Your task to perform on an android device: open a bookmark in the chrome app Image 0: 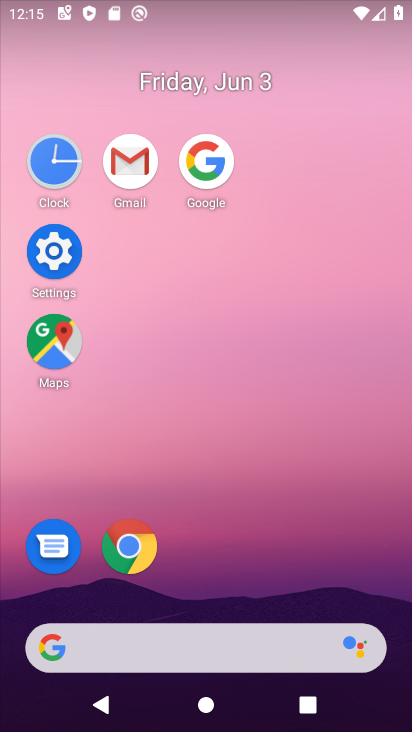
Step 0: click (132, 550)
Your task to perform on an android device: open a bookmark in the chrome app Image 1: 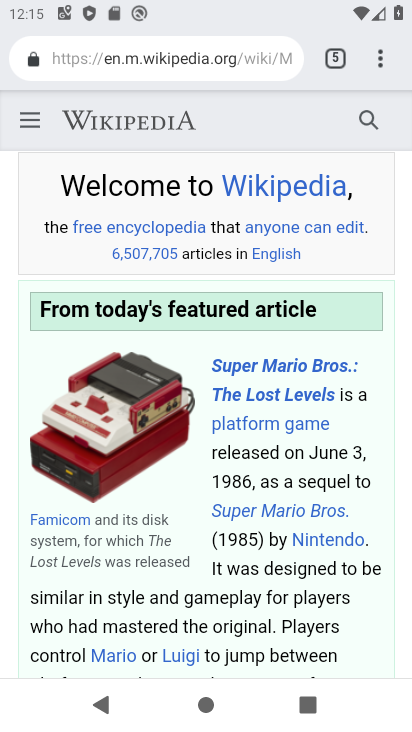
Step 1: click (390, 53)
Your task to perform on an android device: open a bookmark in the chrome app Image 2: 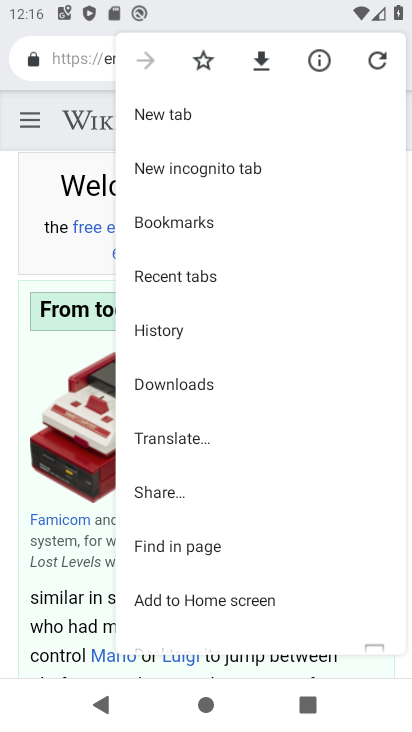
Step 2: click (192, 222)
Your task to perform on an android device: open a bookmark in the chrome app Image 3: 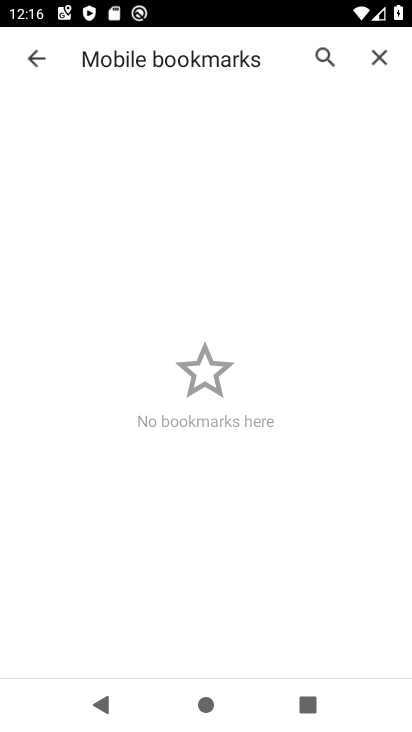
Step 3: task complete